Your task to perform on an android device: Open Youtube and go to the subscriptions tab Image 0: 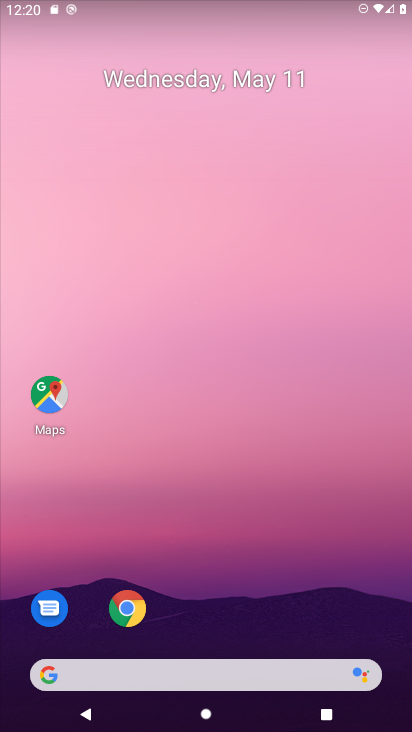
Step 0: drag from (275, 560) to (268, 43)
Your task to perform on an android device: Open Youtube and go to the subscriptions tab Image 1: 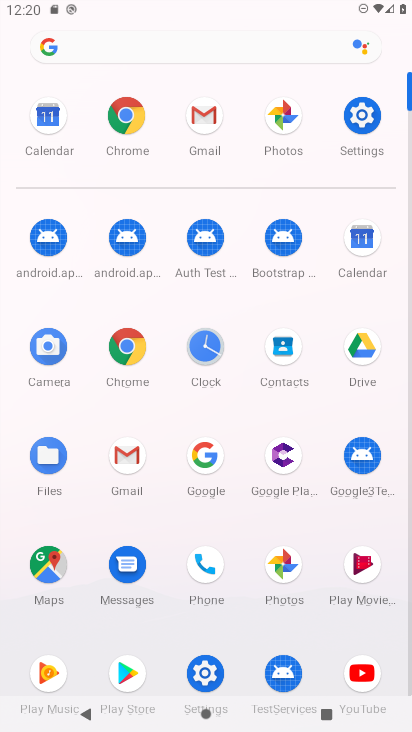
Step 1: click (363, 675)
Your task to perform on an android device: Open Youtube and go to the subscriptions tab Image 2: 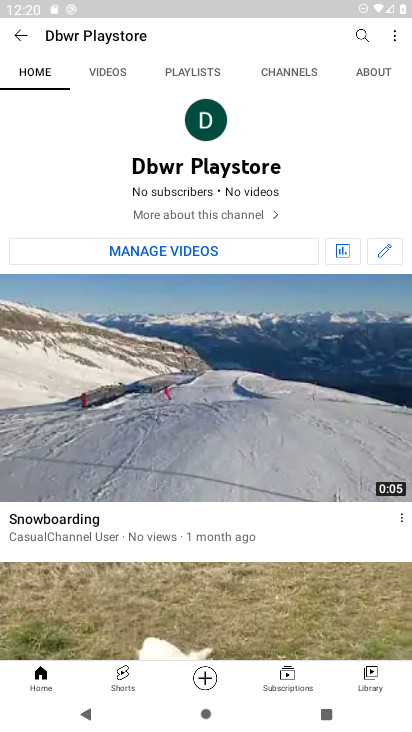
Step 2: click (300, 677)
Your task to perform on an android device: Open Youtube and go to the subscriptions tab Image 3: 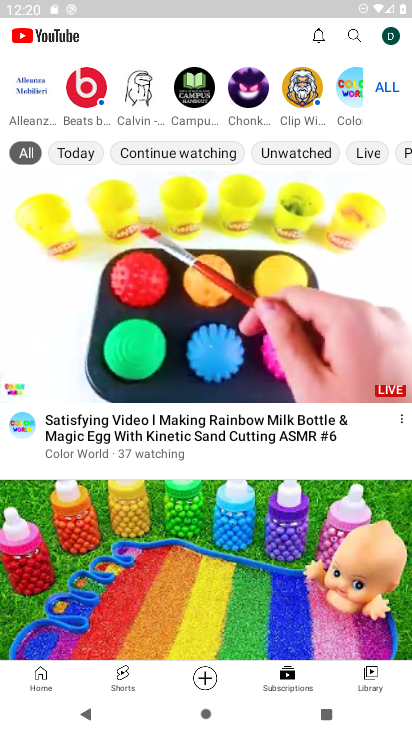
Step 3: task complete